Your task to perform on an android device: turn off airplane mode Image 0: 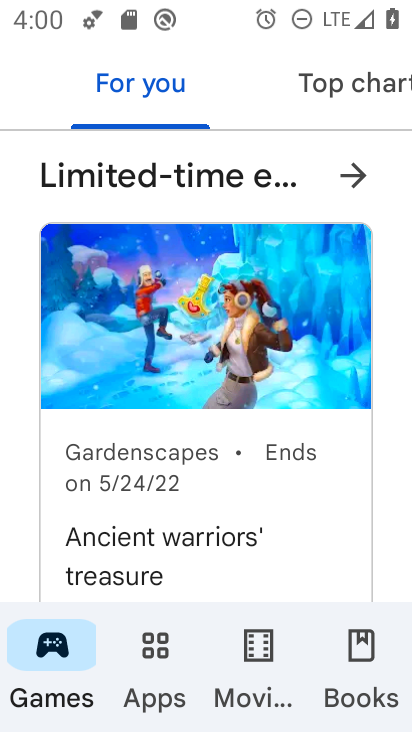
Step 0: press home button
Your task to perform on an android device: turn off airplane mode Image 1: 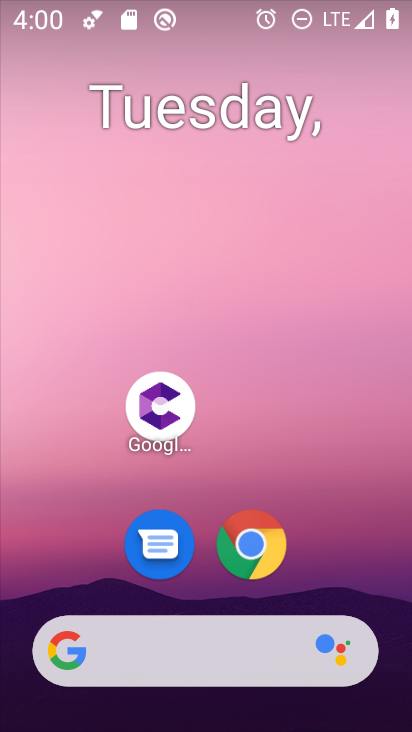
Step 1: drag from (326, 564) to (331, 135)
Your task to perform on an android device: turn off airplane mode Image 2: 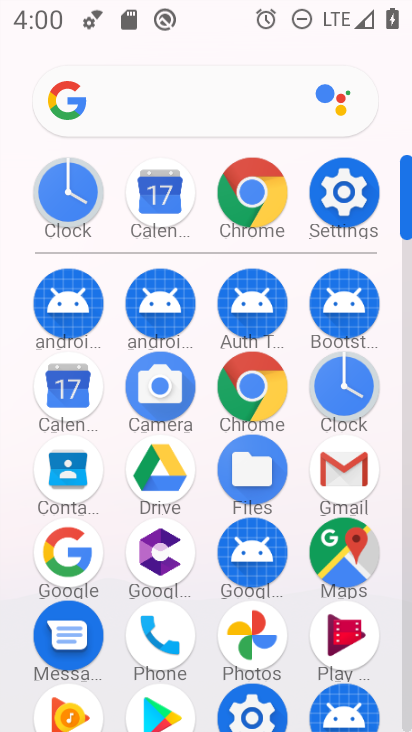
Step 2: click (340, 198)
Your task to perform on an android device: turn off airplane mode Image 3: 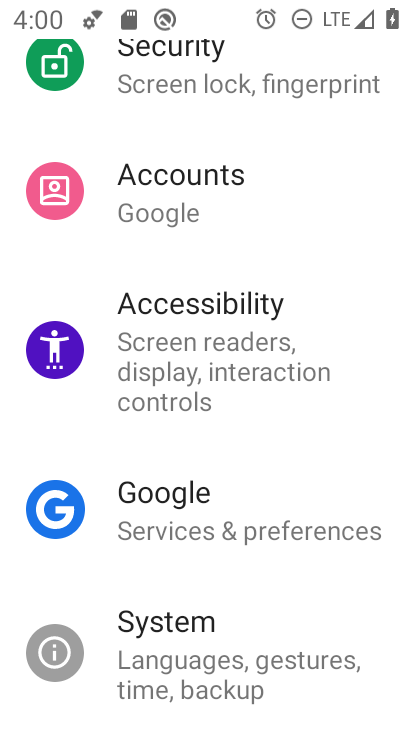
Step 3: drag from (360, 349) to (362, 408)
Your task to perform on an android device: turn off airplane mode Image 4: 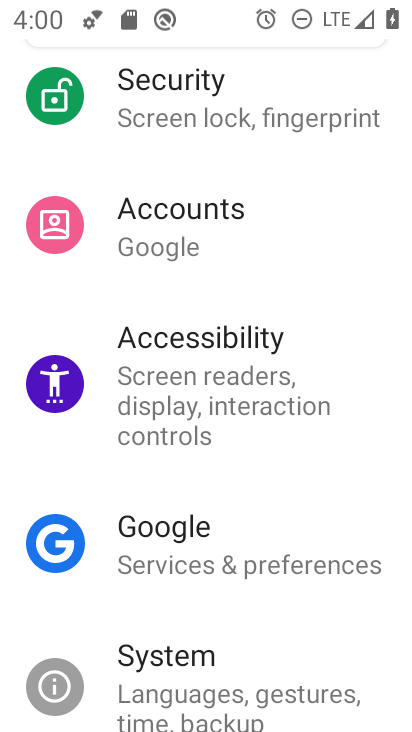
Step 4: drag from (369, 296) to (375, 379)
Your task to perform on an android device: turn off airplane mode Image 5: 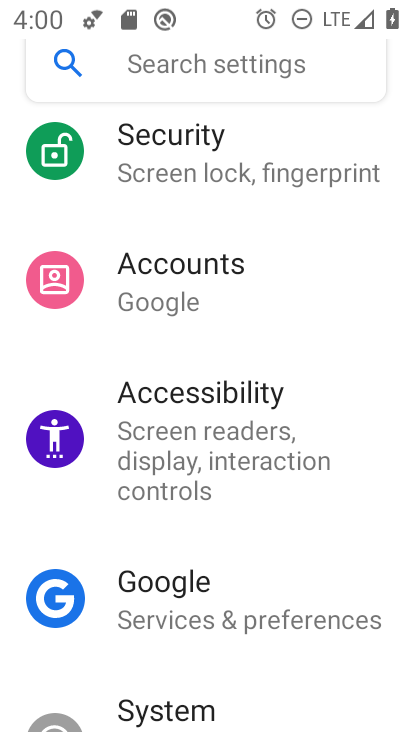
Step 5: drag from (357, 271) to (353, 358)
Your task to perform on an android device: turn off airplane mode Image 6: 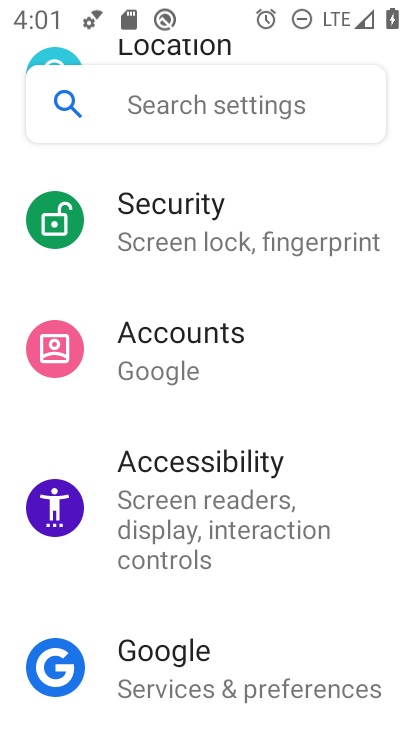
Step 6: drag from (335, 281) to (322, 408)
Your task to perform on an android device: turn off airplane mode Image 7: 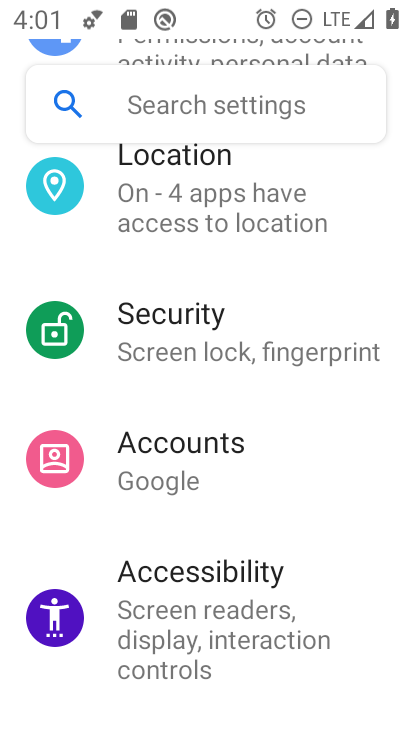
Step 7: drag from (340, 271) to (351, 420)
Your task to perform on an android device: turn off airplane mode Image 8: 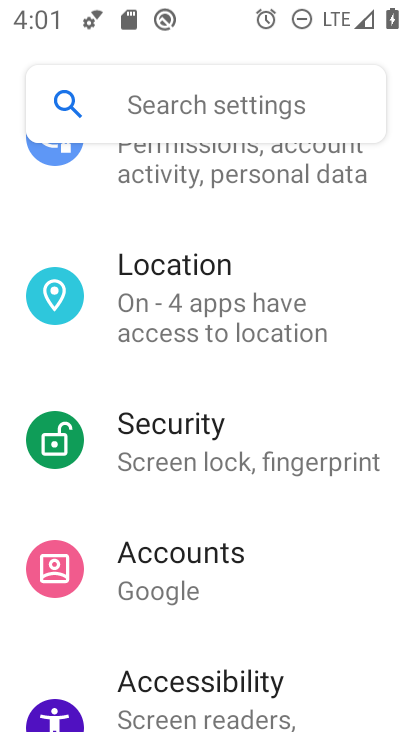
Step 8: drag from (338, 261) to (337, 369)
Your task to perform on an android device: turn off airplane mode Image 9: 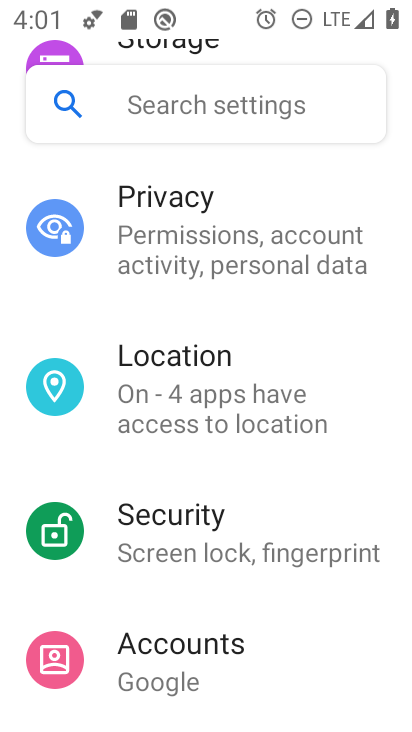
Step 9: drag from (379, 233) to (356, 370)
Your task to perform on an android device: turn off airplane mode Image 10: 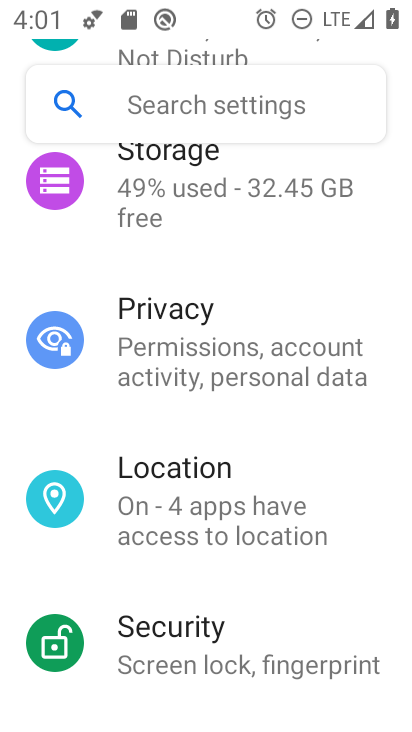
Step 10: drag from (369, 244) to (370, 382)
Your task to perform on an android device: turn off airplane mode Image 11: 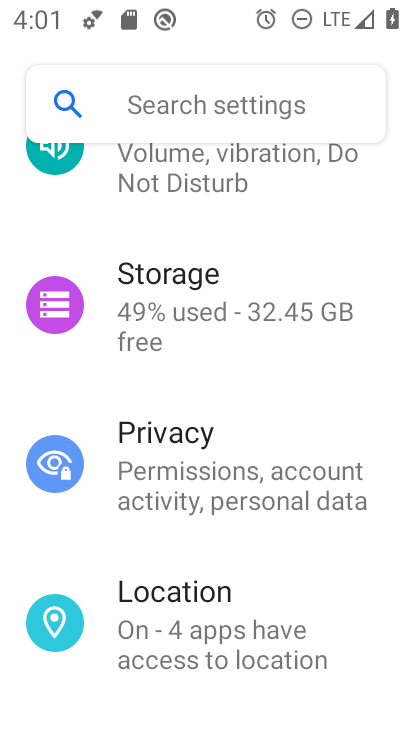
Step 11: drag from (363, 254) to (355, 374)
Your task to perform on an android device: turn off airplane mode Image 12: 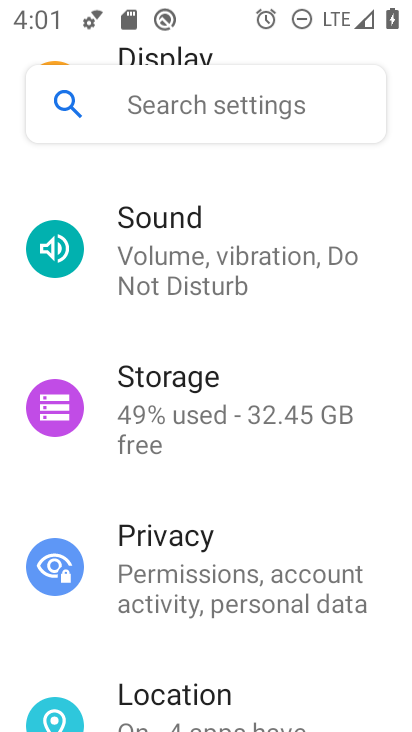
Step 12: drag from (367, 216) to (360, 352)
Your task to perform on an android device: turn off airplane mode Image 13: 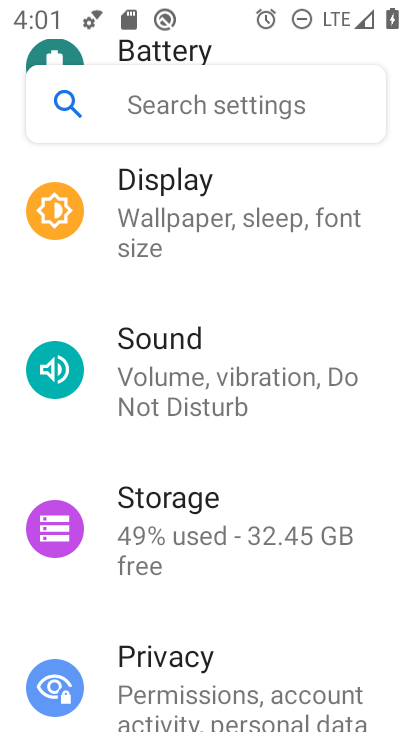
Step 13: drag from (362, 182) to (362, 305)
Your task to perform on an android device: turn off airplane mode Image 14: 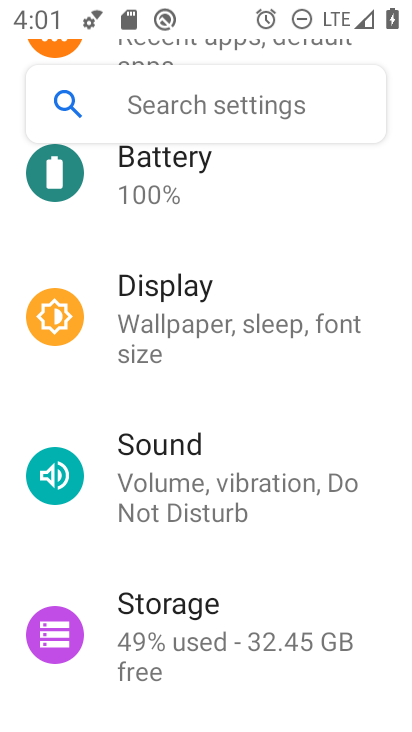
Step 14: drag from (344, 231) to (324, 370)
Your task to perform on an android device: turn off airplane mode Image 15: 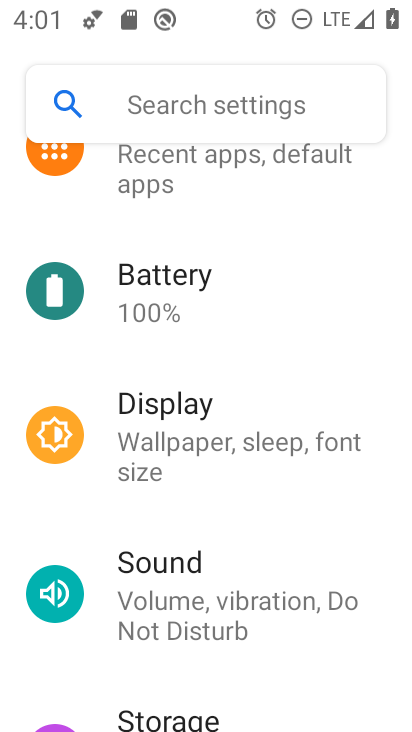
Step 15: drag from (330, 215) to (305, 344)
Your task to perform on an android device: turn off airplane mode Image 16: 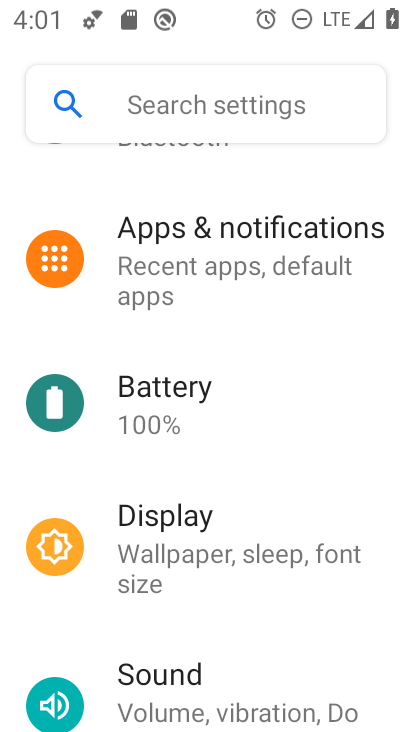
Step 16: drag from (324, 173) to (311, 349)
Your task to perform on an android device: turn off airplane mode Image 17: 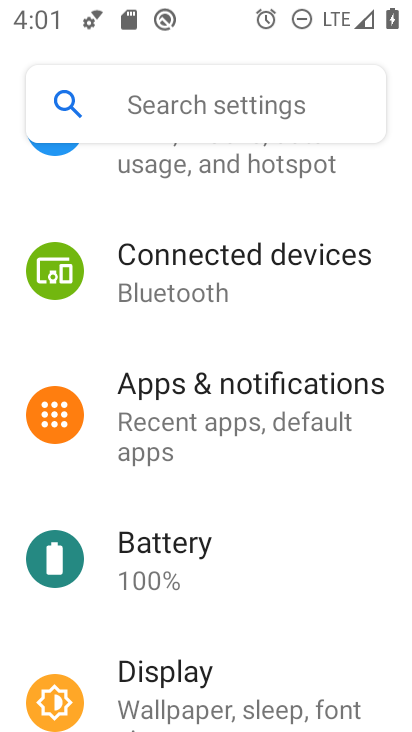
Step 17: drag from (317, 222) to (319, 494)
Your task to perform on an android device: turn off airplane mode Image 18: 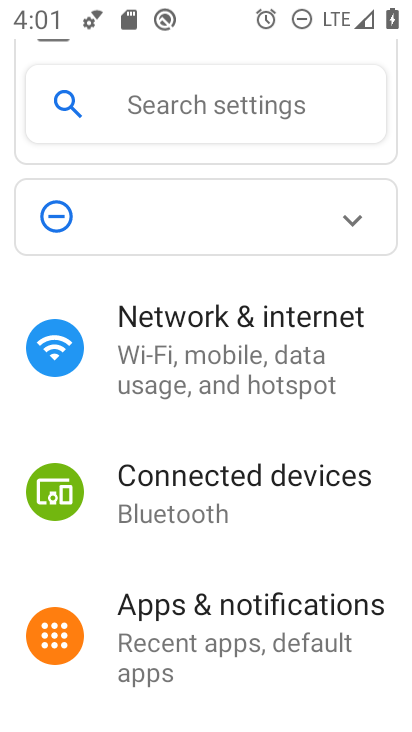
Step 18: click (265, 376)
Your task to perform on an android device: turn off airplane mode Image 19: 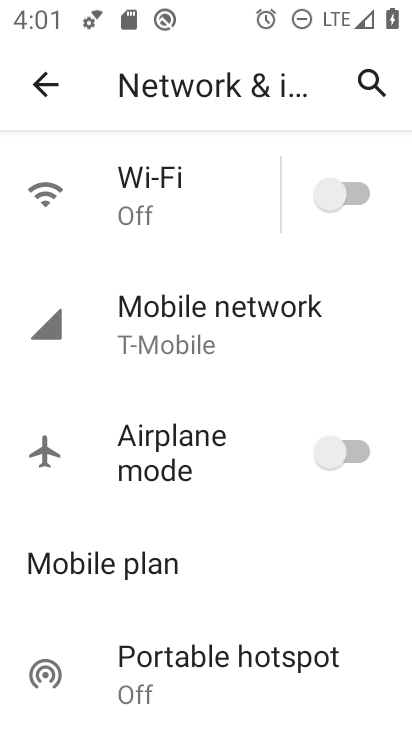
Step 19: task complete